Your task to perform on an android device: Search for Mexican restaurants on Maps Image 0: 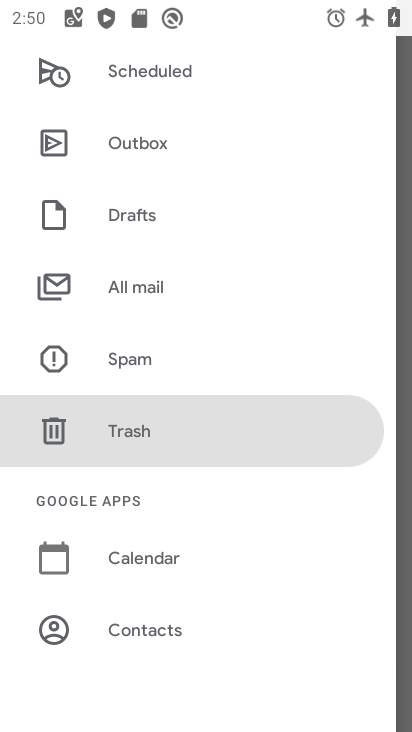
Step 0: press home button
Your task to perform on an android device: Search for Mexican restaurants on Maps Image 1: 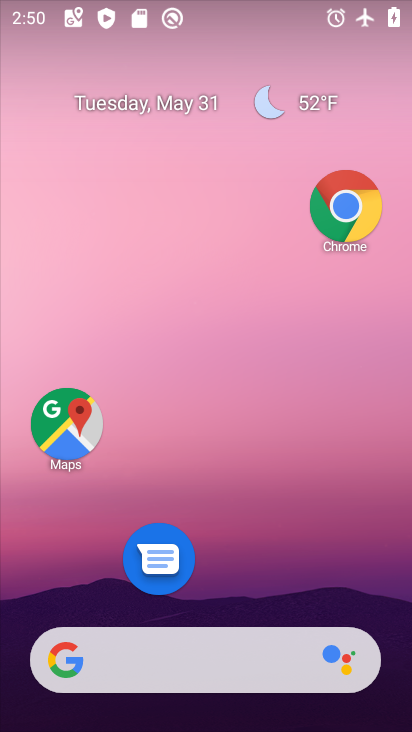
Step 1: drag from (245, 578) to (181, 104)
Your task to perform on an android device: Search for Mexican restaurants on Maps Image 2: 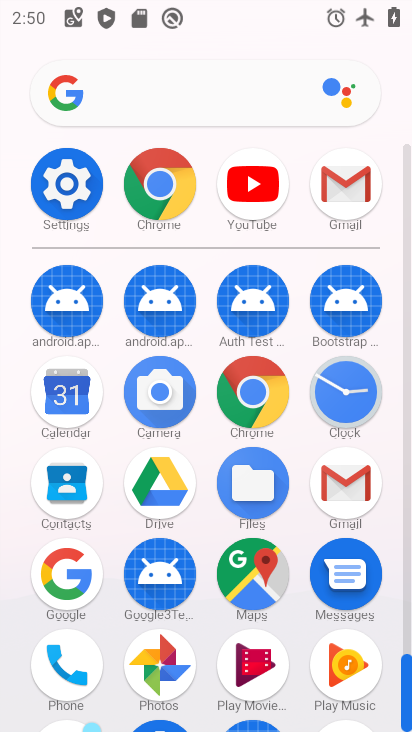
Step 2: click (267, 600)
Your task to perform on an android device: Search for Mexican restaurants on Maps Image 3: 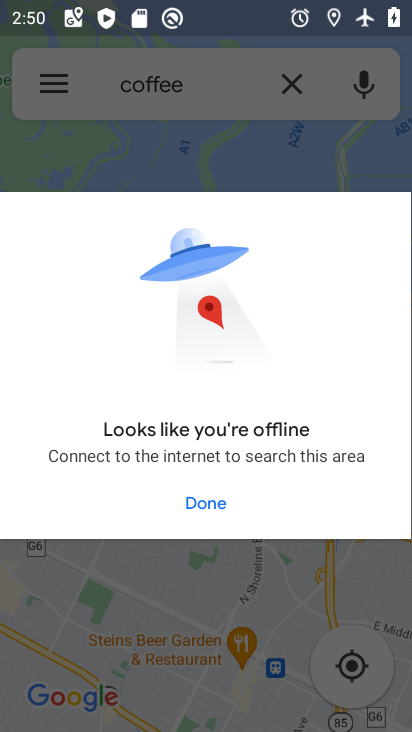
Step 3: task complete